Your task to perform on an android device: Open Reddit.com Image 0: 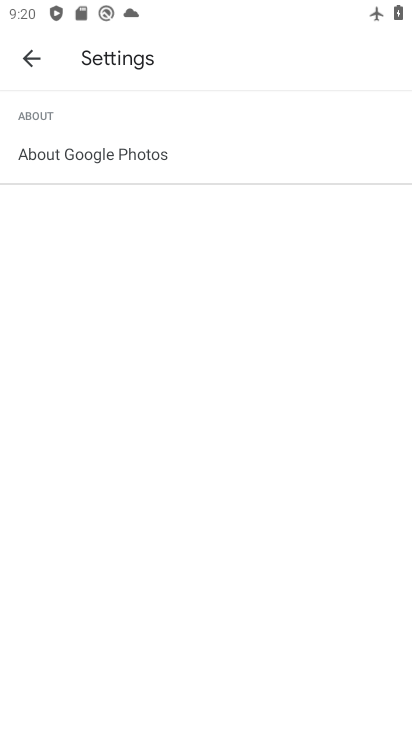
Step 0: press home button
Your task to perform on an android device: Open Reddit.com Image 1: 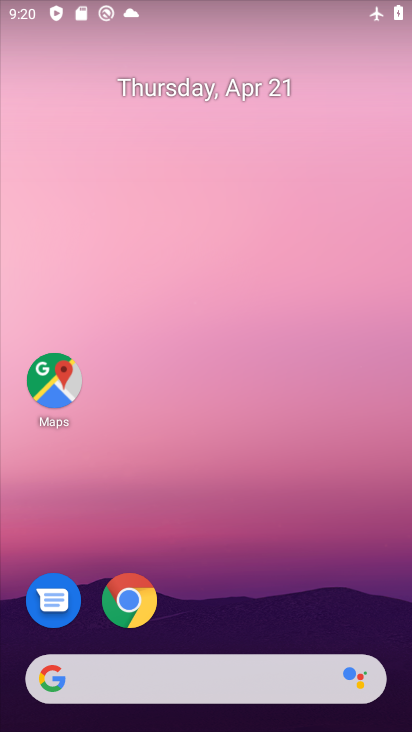
Step 1: drag from (246, 555) to (257, 130)
Your task to perform on an android device: Open Reddit.com Image 2: 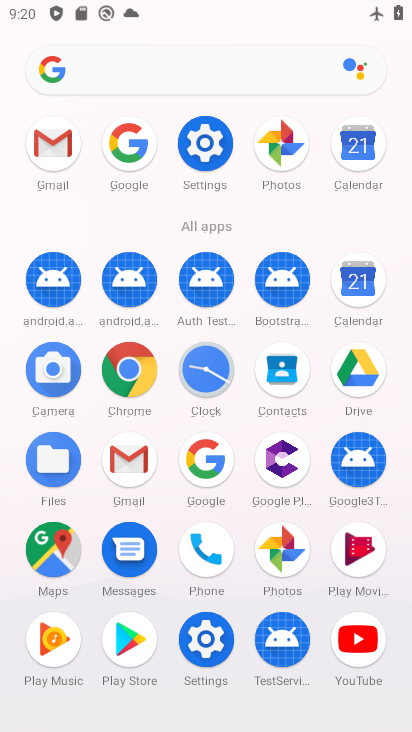
Step 2: click (130, 145)
Your task to perform on an android device: Open Reddit.com Image 3: 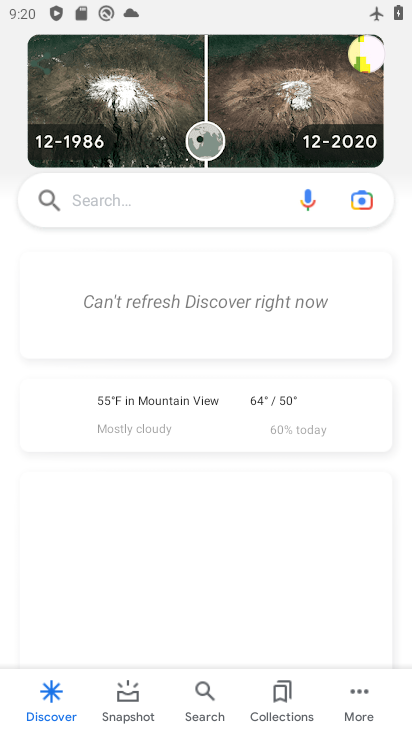
Step 3: click (154, 205)
Your task to perform on an android device: Open Reddit.com Image 4: 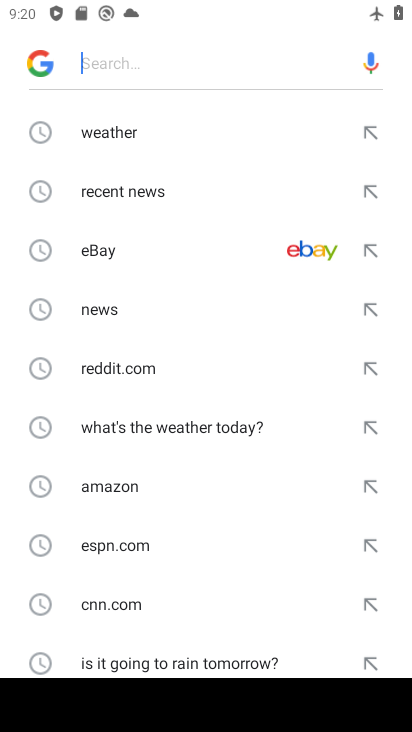
Step 4: click (134, 363)
Your task to perform on an android device: Open Reddit.com Image 5: 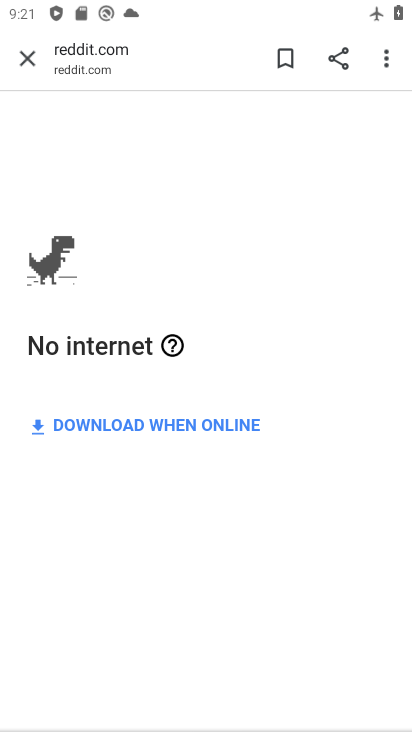
Step 5: task complete